Your task to perform on an android device: Go to settings Image 0: 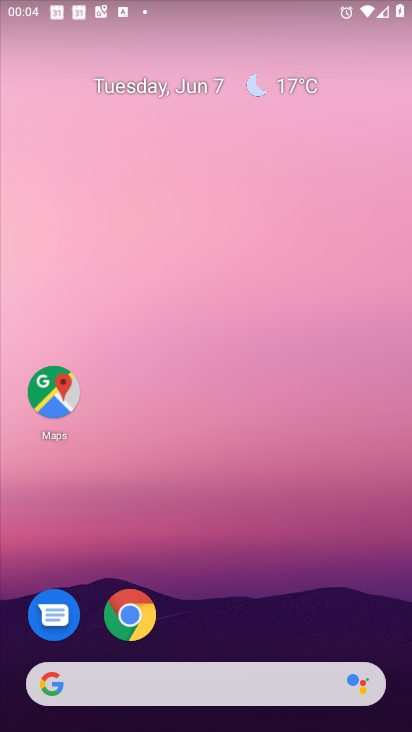
Step 0: drag from (389, 584) to (362, 400)
Your task to perform on an android device: Go to settings Image 1: 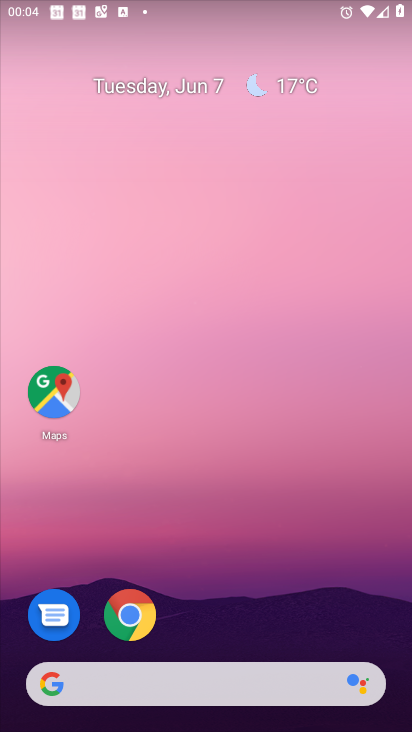
Step 1: drag from (395, 697) to (290, 209)
Your task to perform on an android device: Go to settings Image 2: 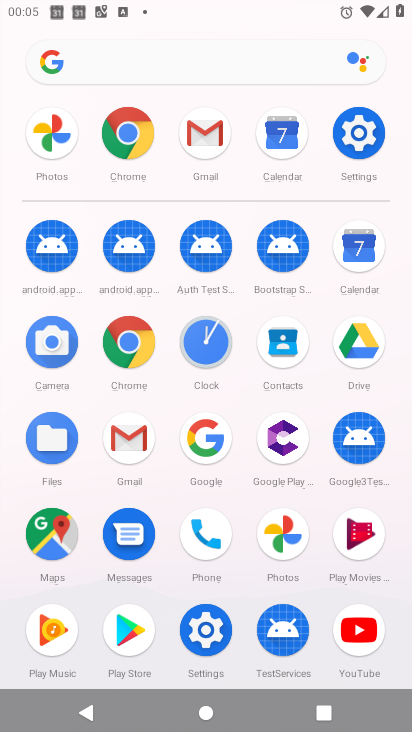
Step 2: click (358, 146)
Your task to perform on an android device: Go to settings Image 3: 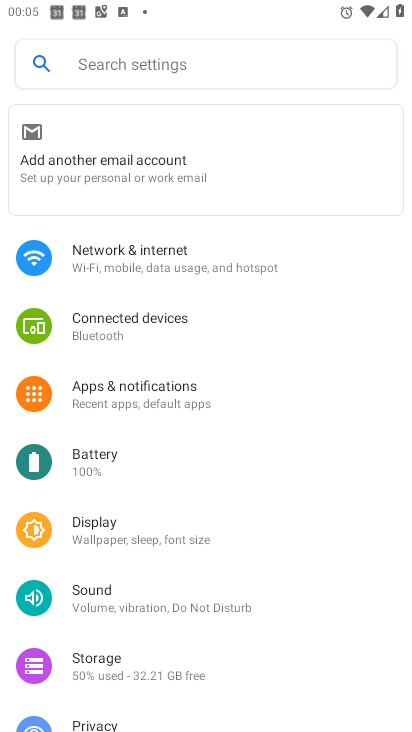
Step 3: task complete